Your task to perform on an android device: Open calendar and show me the third week of next month Image 0: 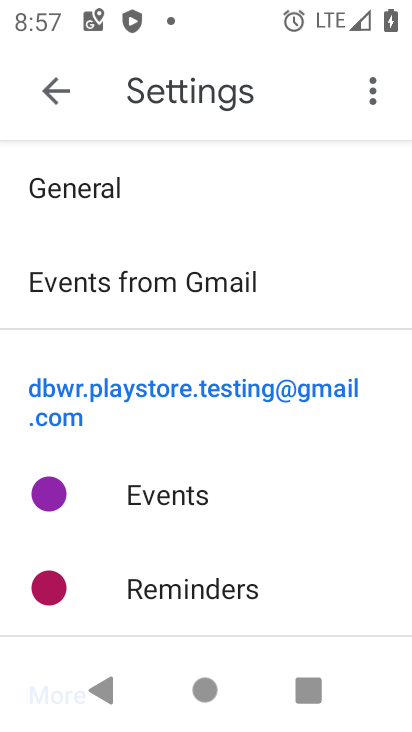
Step 0: press home button
Your task to perform on an android device: Open calendar and show me the third week of next month Image 1: 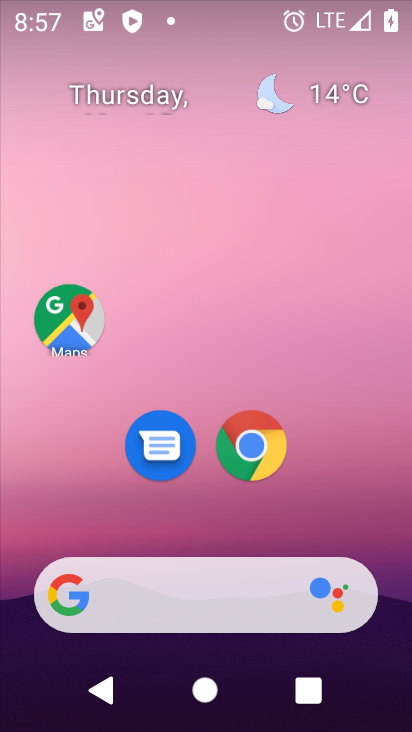
Step 1: drag from (219, 725) to (229, 165)
Your task to perform on an android device: Open calendar and show me the third week of next month Image 2: 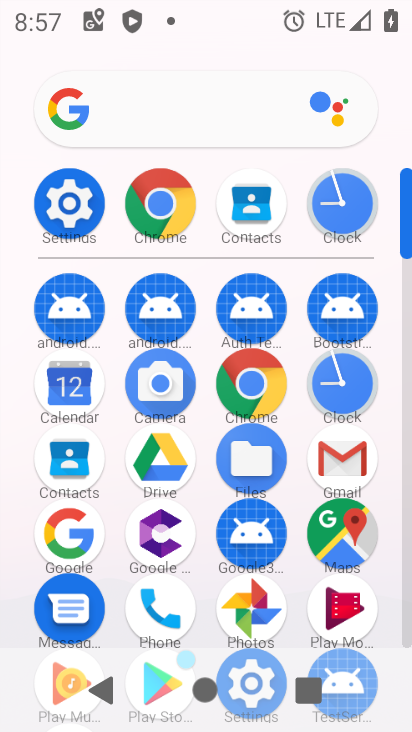
Step 2: click (64, 389)
Your task to perform on an android device: Open calendar and show me the third week of next month Image 3: 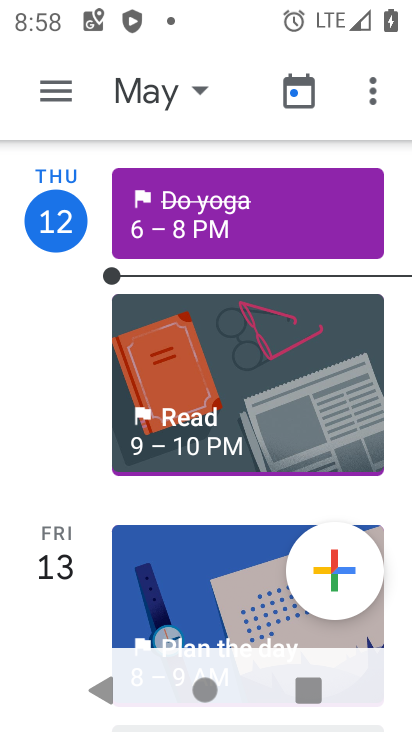
Step 3: click (142, 85)
Your task to perform on an android device: Open calendar and show me the third week of next month Image 4: 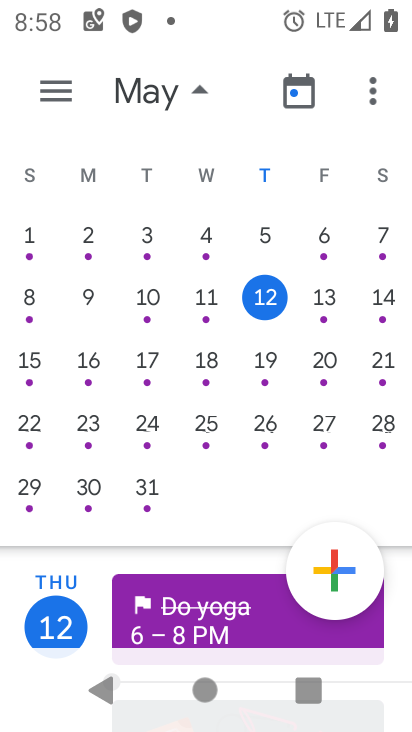
Step 4: drag from (371, 370) to (15, 593)
Your task to perform on an android device: Open calendar and show me the third week of next month Image 5: 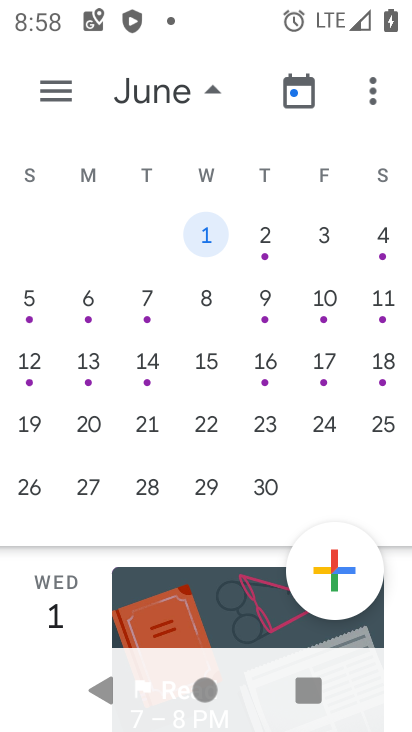
Step 5: click (92, 355)
Your task to perform on an android device: Open calendar and show me the third week of next month Image 6: 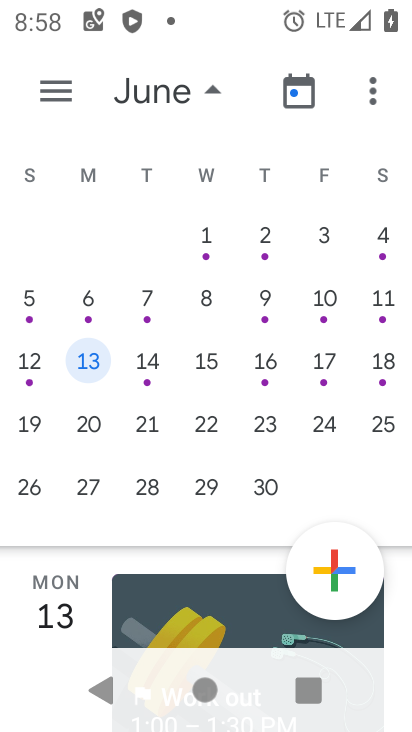
Step 6: click (46, 80)
Your task to perform on an android device: Open calendar and show me the third week of next month Image 7: 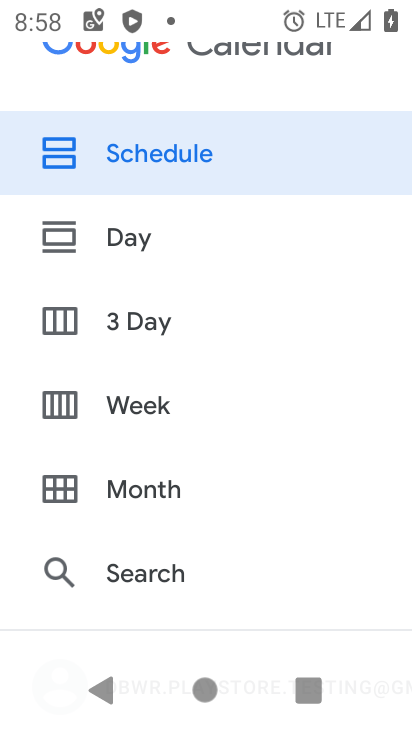
Step 7: click (150, 396)
Your task to perform on an android device: Open calendar and show me the third week of next month Image 8: 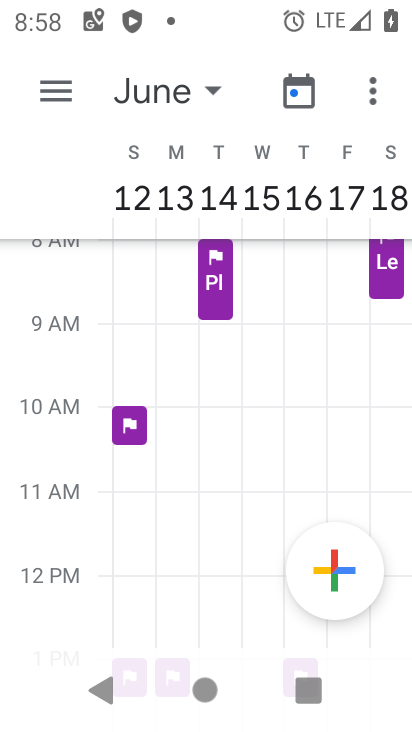
Step 8: task complete